Your task to perform on an android device: toggle wifi Image 0: 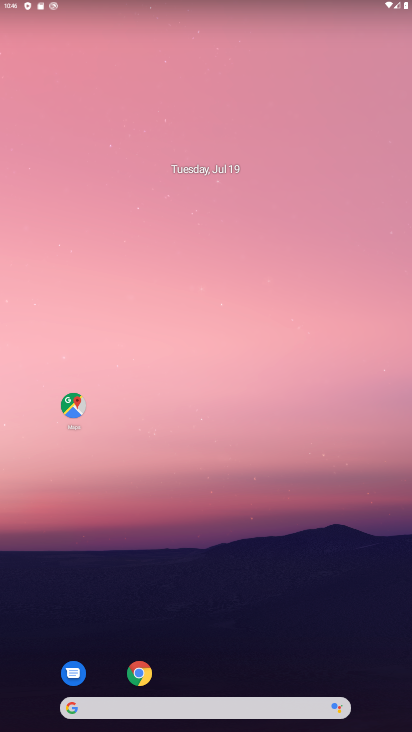
Step 0: drag from (199, 680) to (220, 112)
Your task to perform on an android device: toggle wifi Image 1: 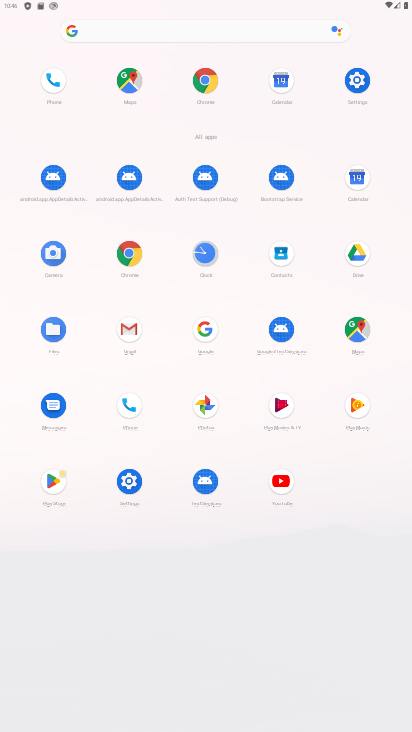
Step 1: click (350, 77)
Your task to perform on an android device: toggle wifi Image 2: 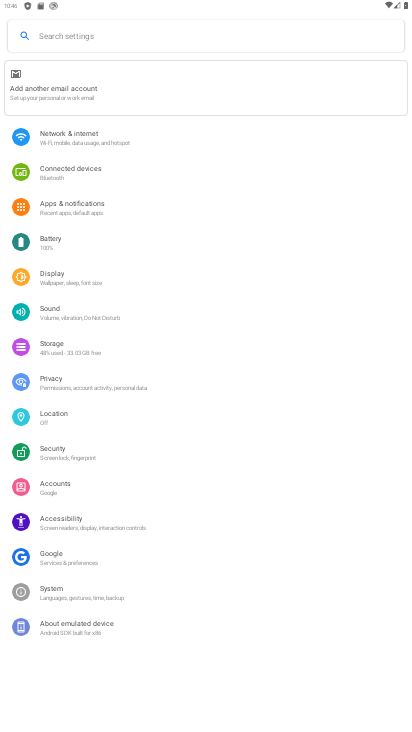
Step 2: click (104, 142)
Your task to perform on an android device: toggle wifi Image 3: 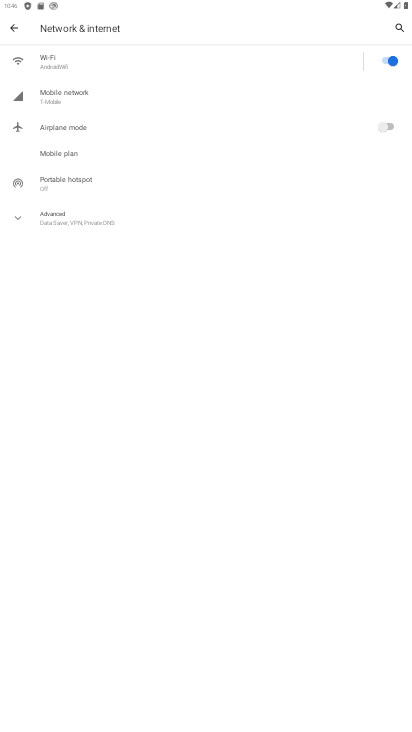
Step 3: click (389, 60)
Your task to perform on an android device: toggle wifi Image 4: 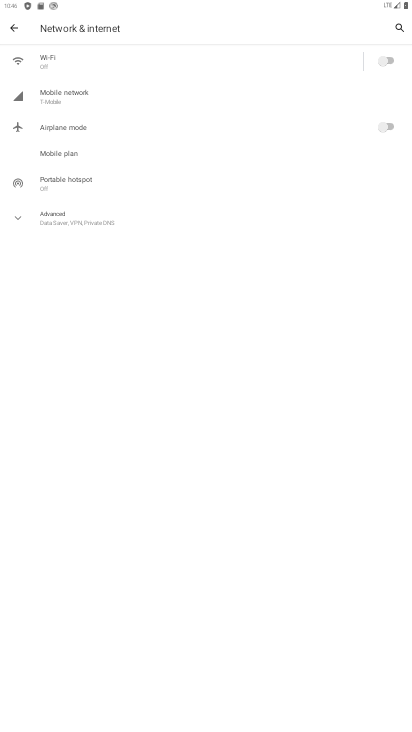
Step 4: task complete